Your task to perform on an android device: open app "Facebook Messenger" Image 0: 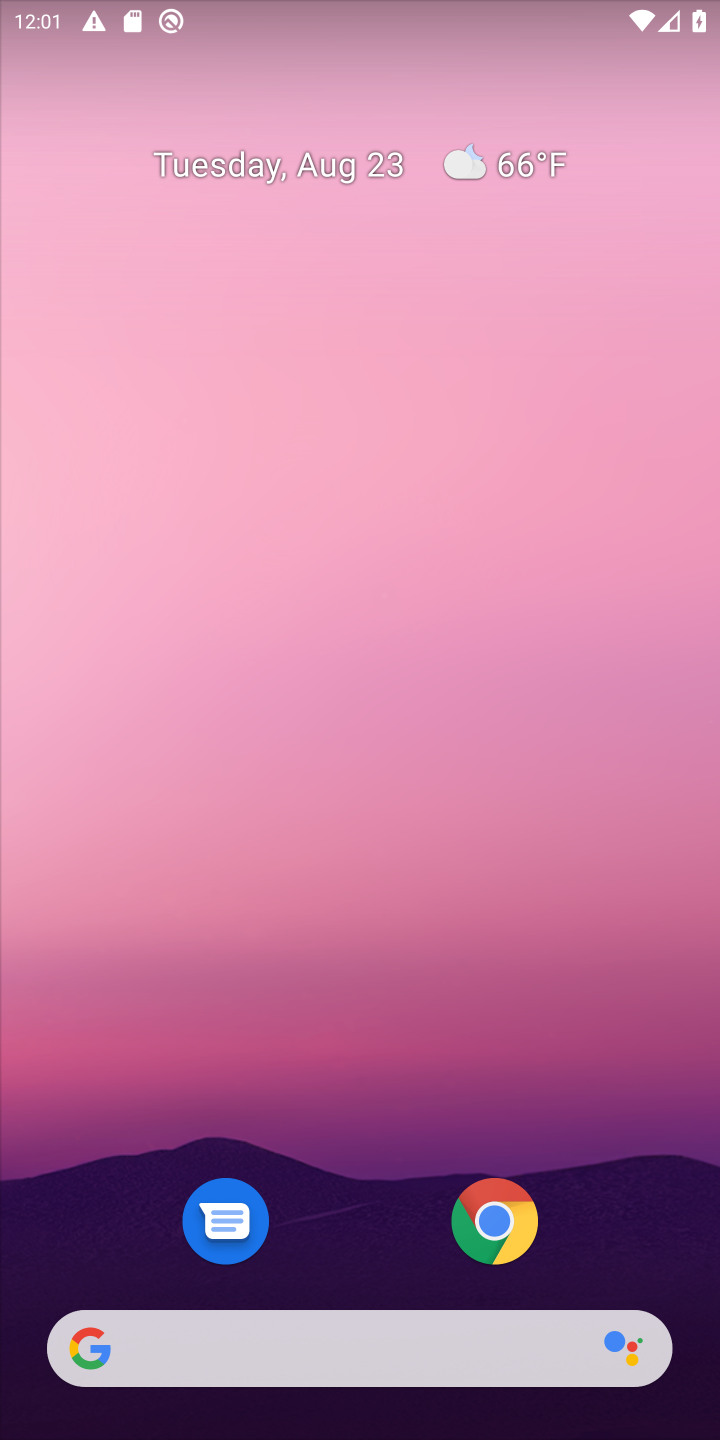
Step 0: drag from (361, 1237) to (465, 158)
Your task to perform on an android device: open app "Facebook Messenger" Image 1: 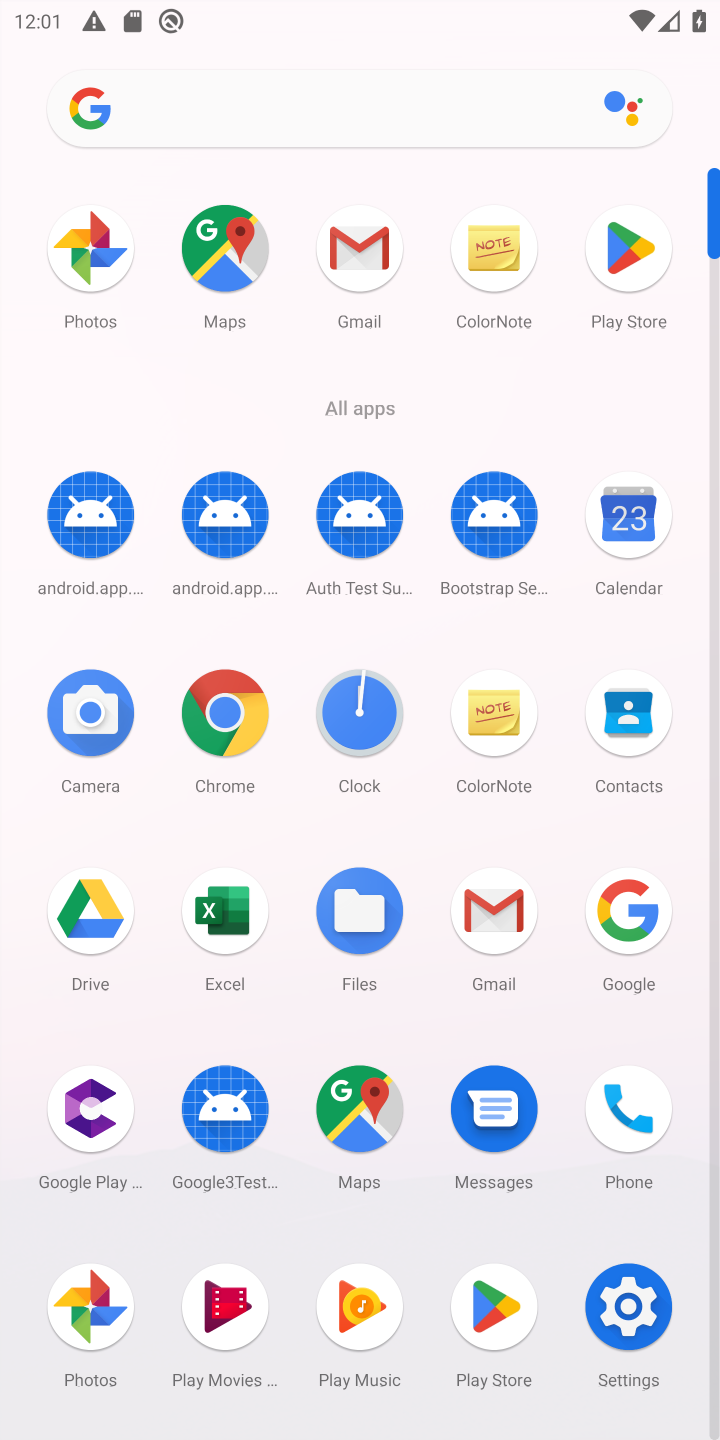
Step 1: click (631, 272)
Your task to perform on an android device: open app "Facebook Messenger" Image 2: 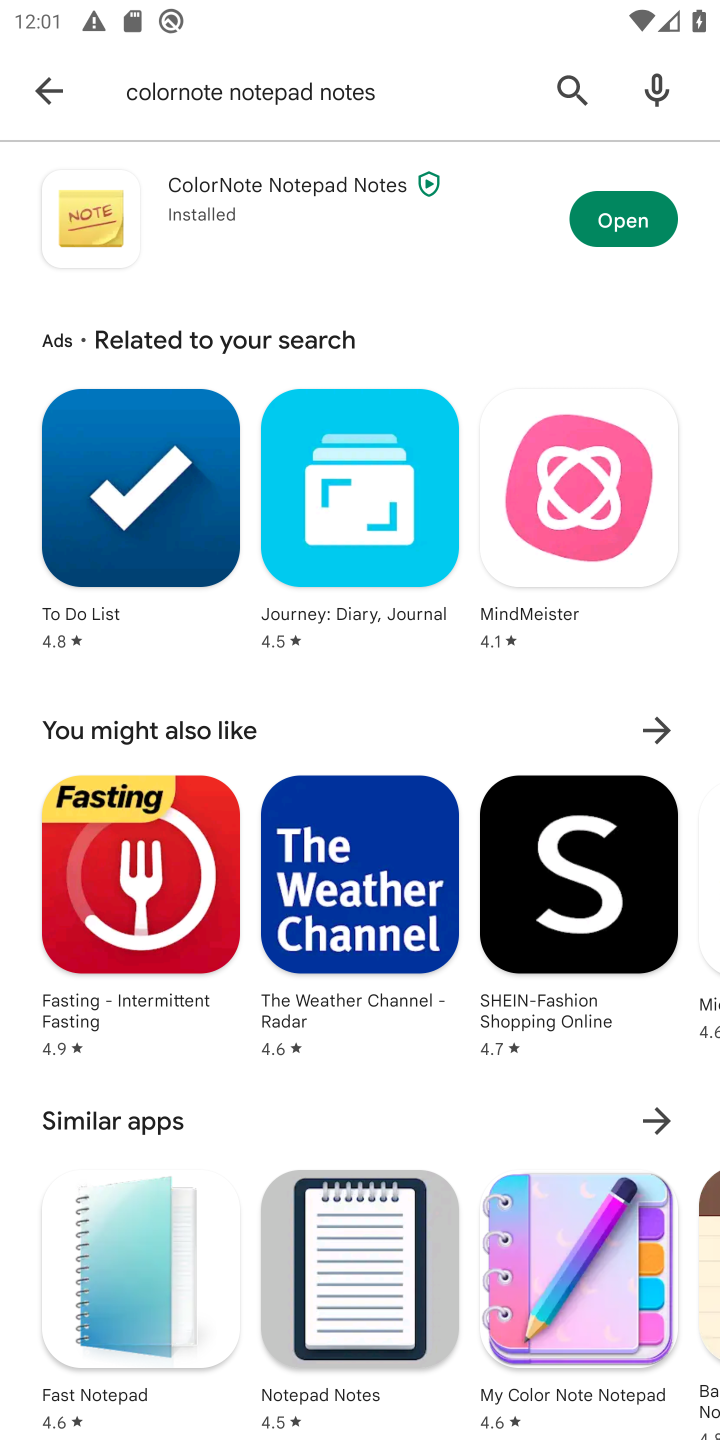
Step 2: click (581, 86)
Your task to perform on an android device: open app "Facebook Messenger" Image 3: 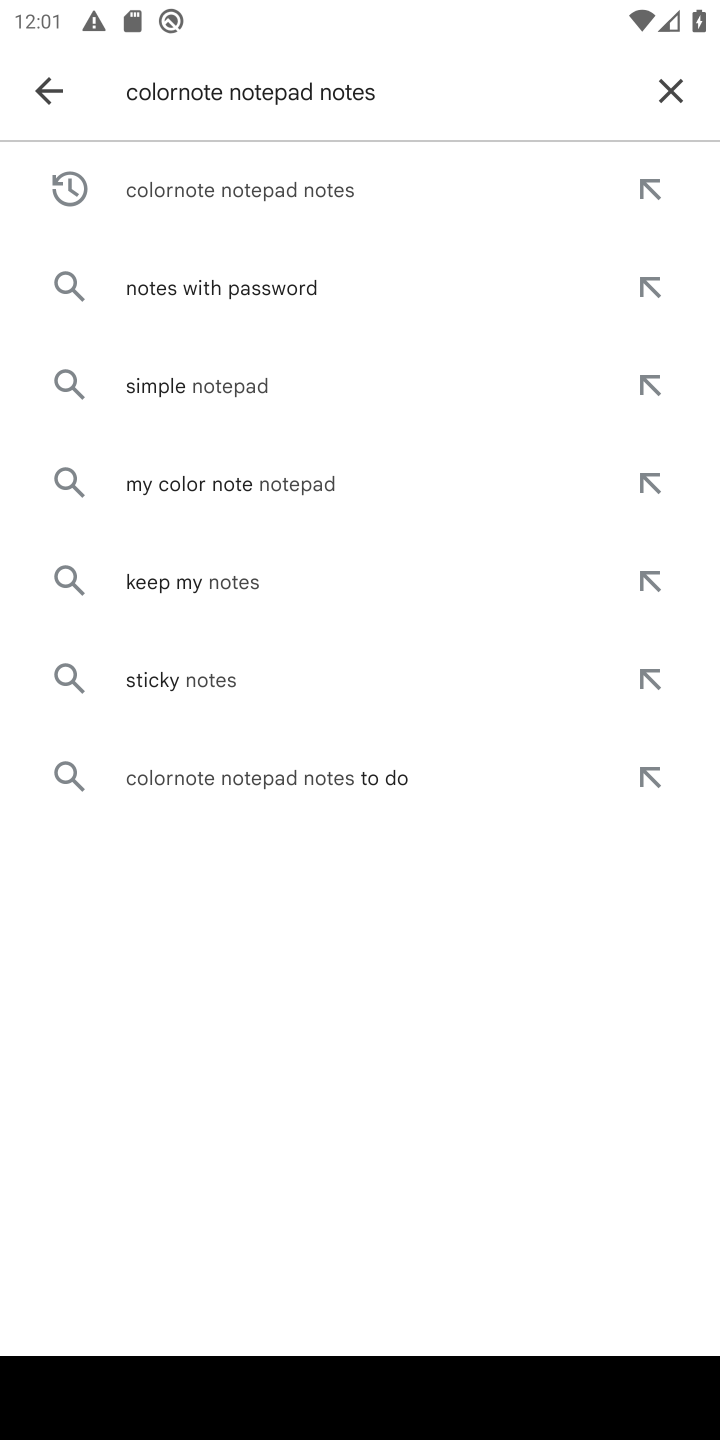
Step 3: click (656, 102)
Your task to perform on an android device: open app "Facebook Messenger" Image 4: 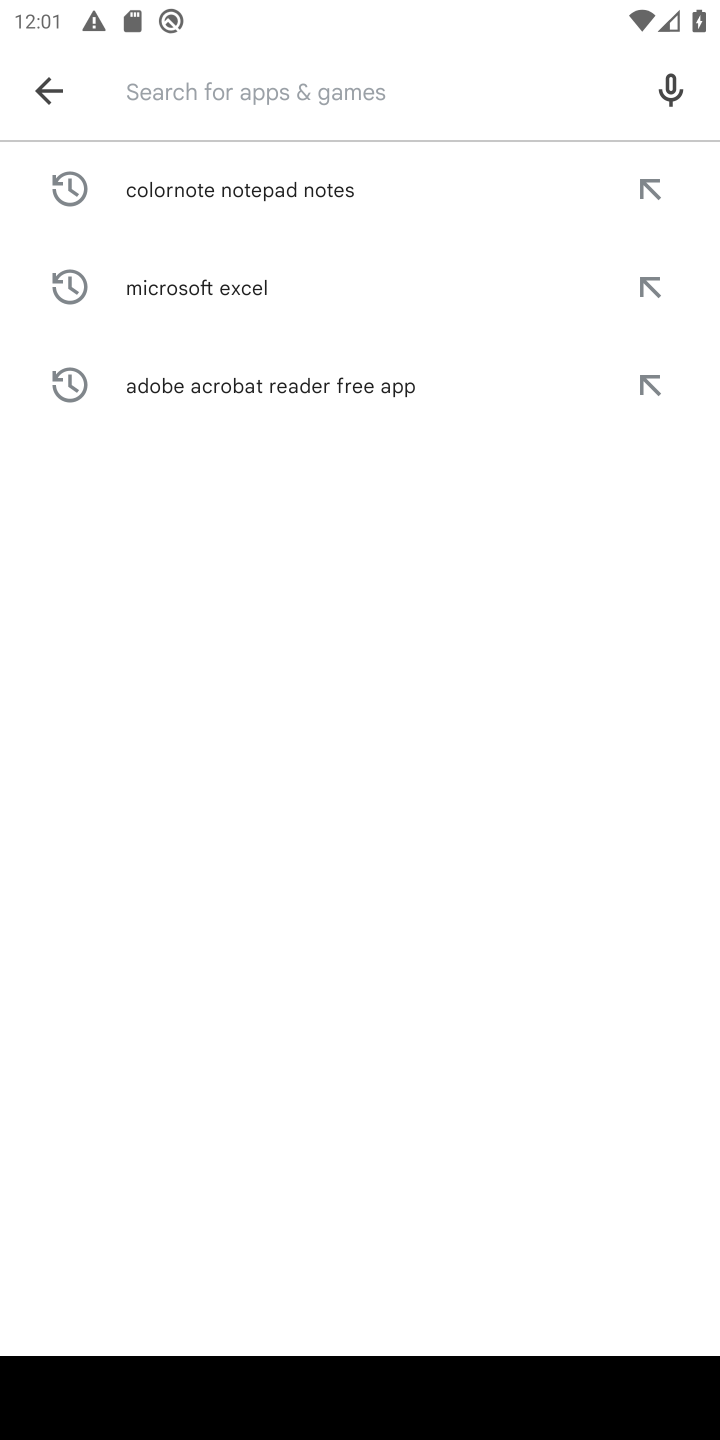
Step 4: click (169, 96)
Your task to perform on an android device: open app "Facebook Messenger" Image 5: 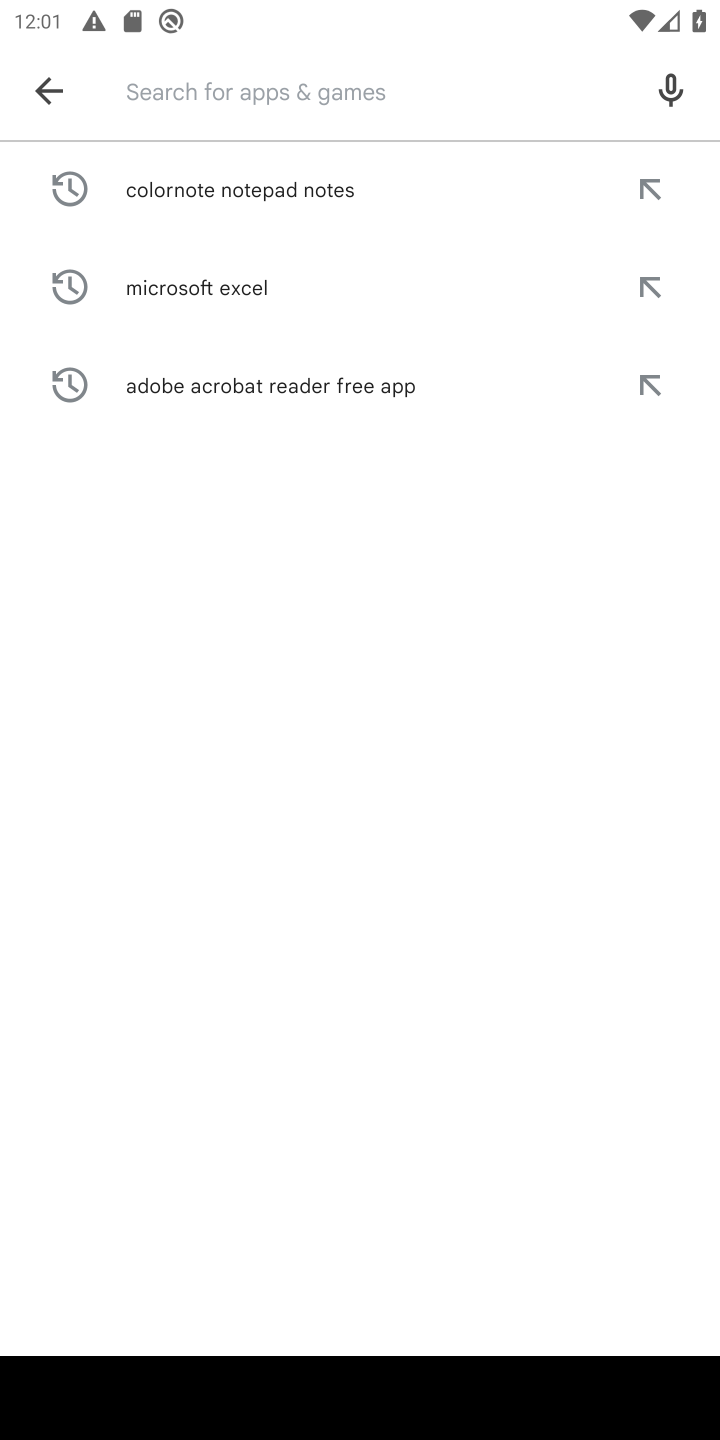
Step 5: type "Facebook Messenger"
Your task to perform on an android device: open app "Facebook Messenger" Image 6: 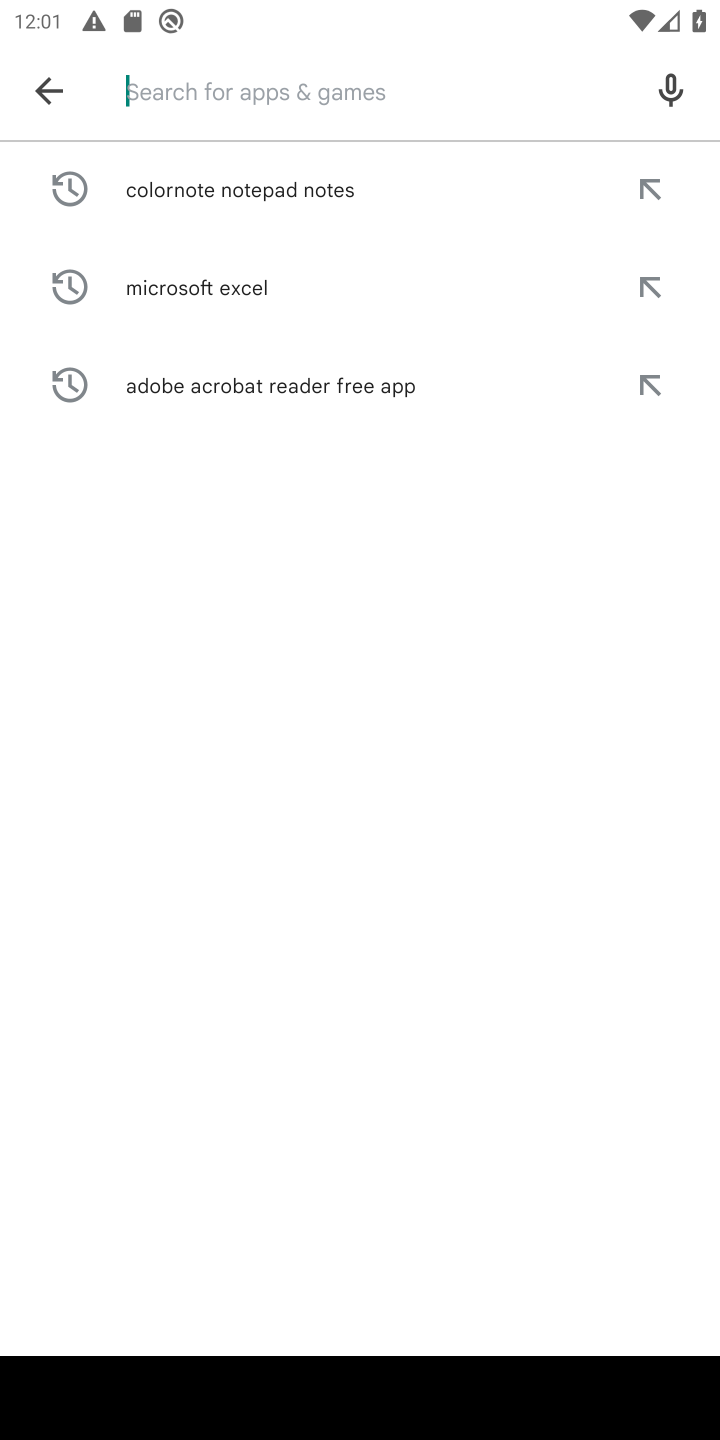
Step 6: click (369, 881)
Your task to perform on an android device: open app "Facebook Messenger" Image 7: 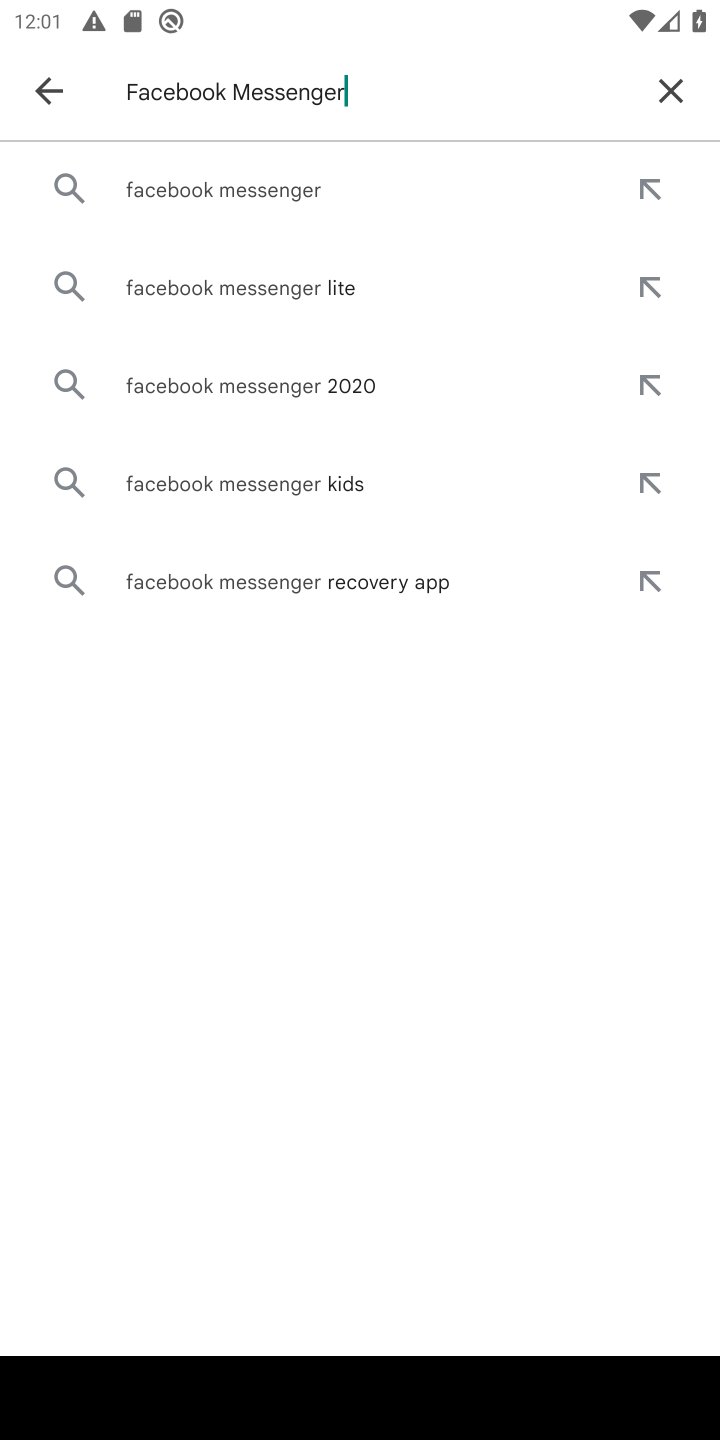
Step 7: click (245, 186)
Your task to perform on an android device: open app "Facebook Messenger" Image 8: 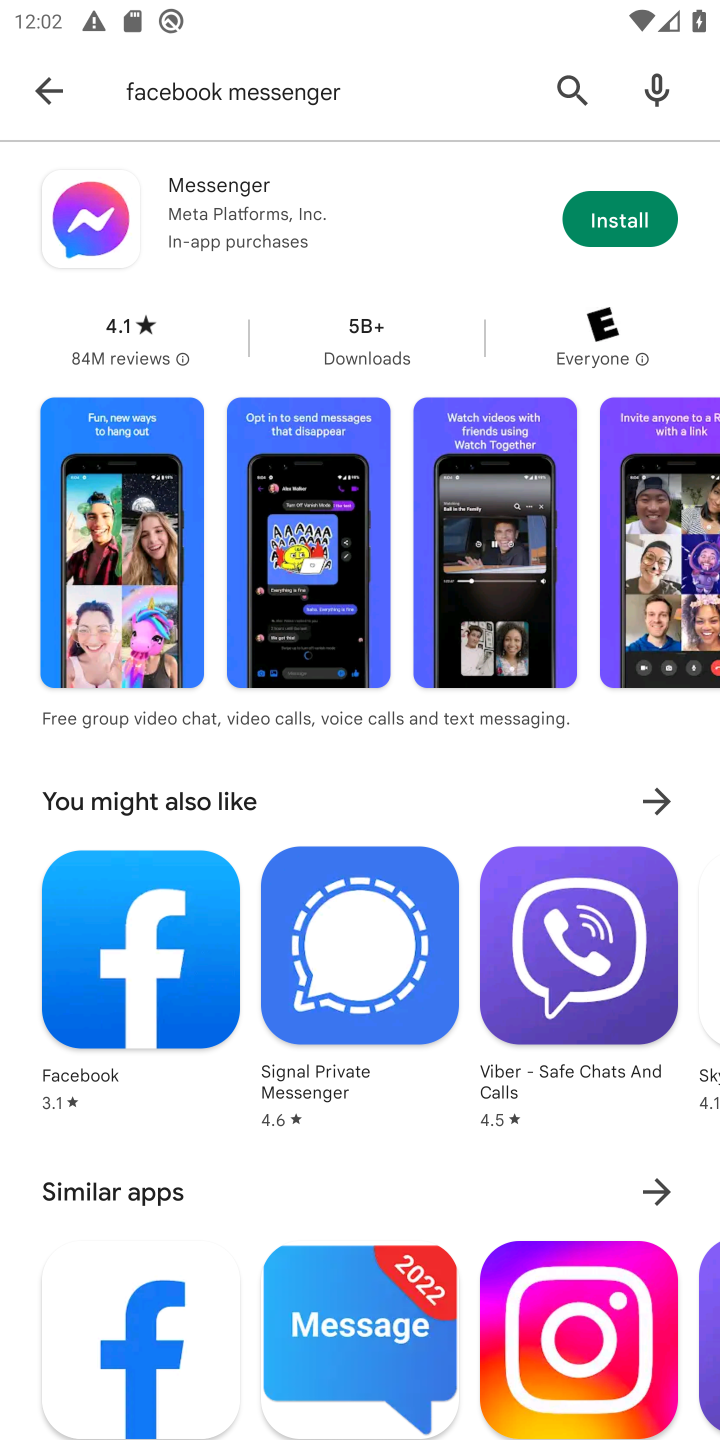
Step 8: task complete